Your task to perform on an android device: Open Wikipedia Image 0: 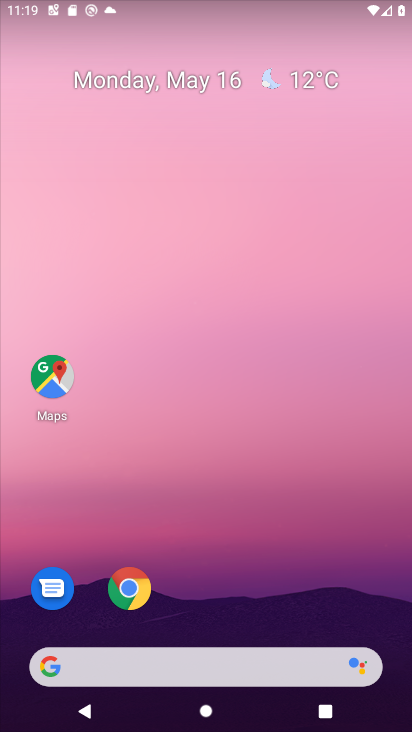
Step 0: drag from (204, 620) to (259, 99)
Your task to perform on an android device: Open Wikipedia Image 1: 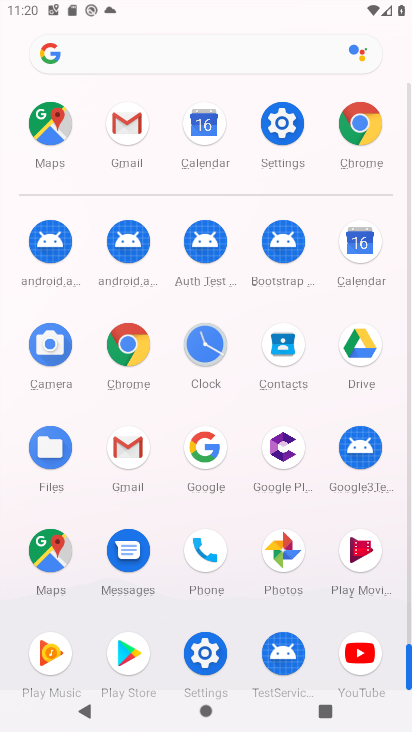
Step 1: click (358, 123)
Your task to perform on an android device: Open Wikipedia Image 2: 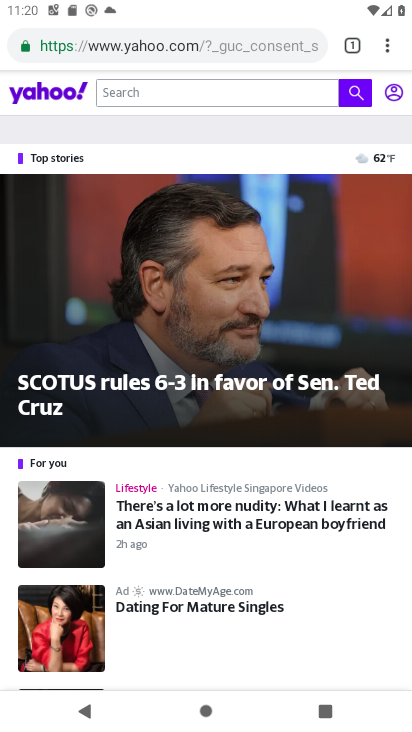
Step 2: click (350, 44)
Your task to perform on an android device: Open Wikipedia Image 3: 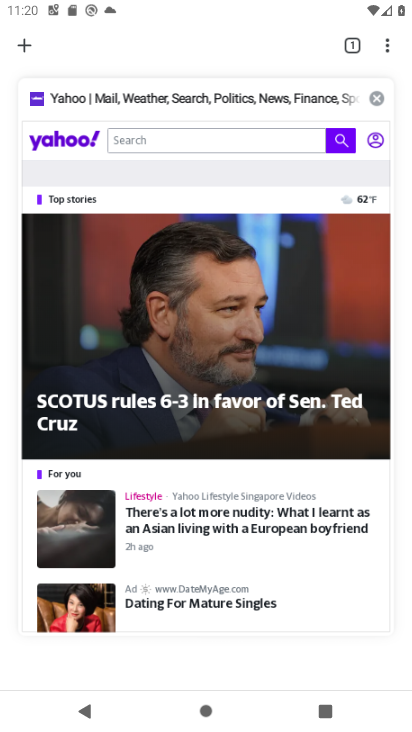
Step 3: click (376, 97)
Your task to perform on an android device: Open Wikipedia Image 4: 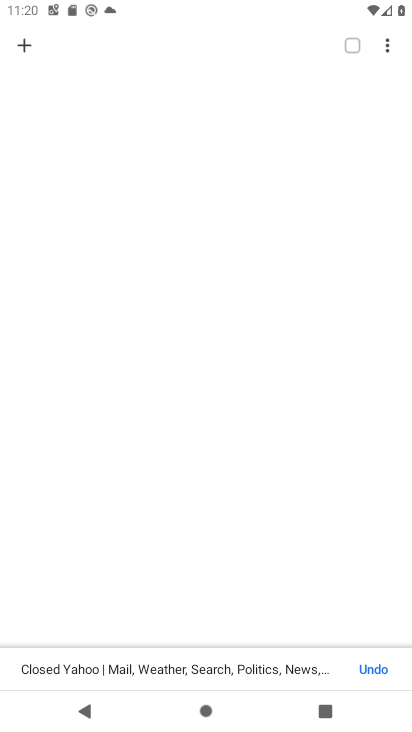
Step 4: click (24, 47)
Your task to perform on an android device: Open Wikipedia Image 5: 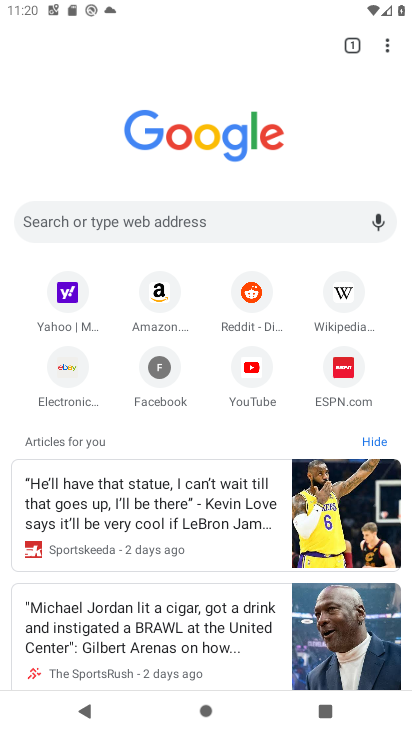
Step 5: click (343, 288)
Your task to perform on an android device: Open Wikipedia Image 6: 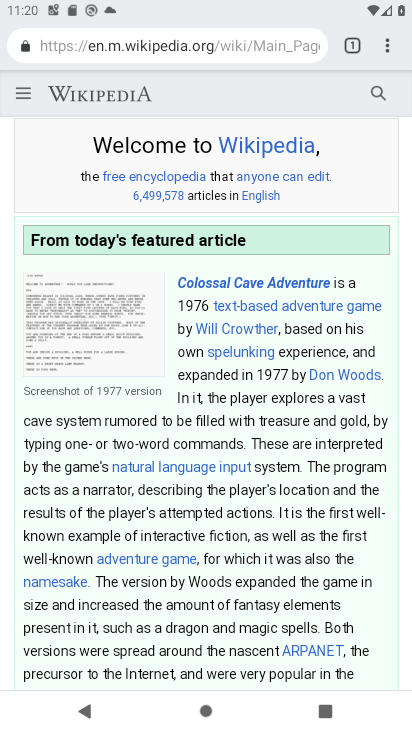
Step 6: task complete